Your task to perform on an android device: toggle javascript in the chrome app Image 0: 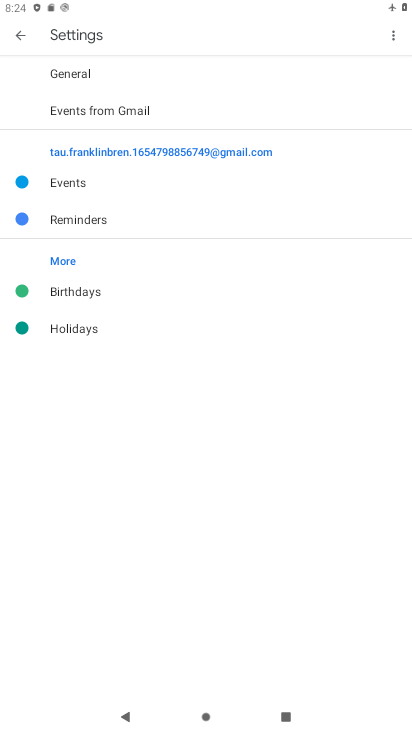
Step 0: press home button
Your task to perform on an android device: toggle javascript in the chrome app Image 1: 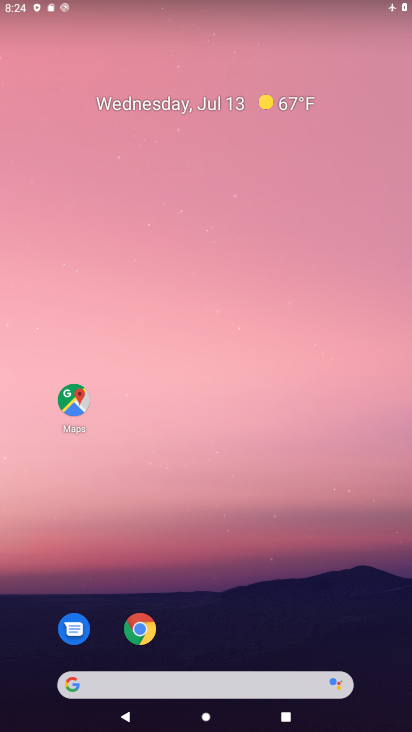
Step 1: click (149, 624)
Your task to perform on an android device: toggle javascript in the chrome app Image 2: 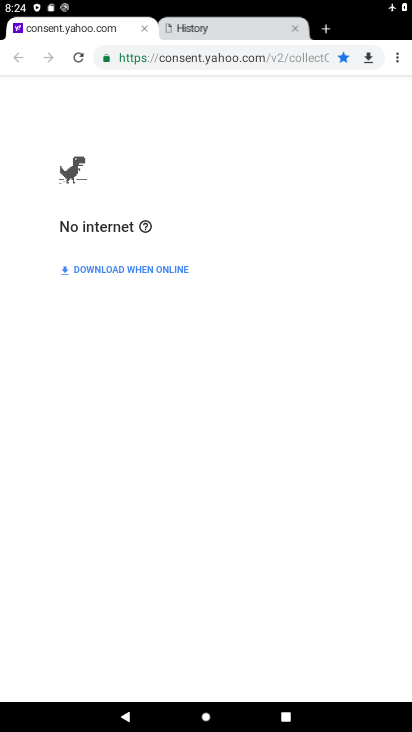
Step 2: click (398, 46)
Your task to perform on an android device: toggle javascript in the chrome app Image 3: 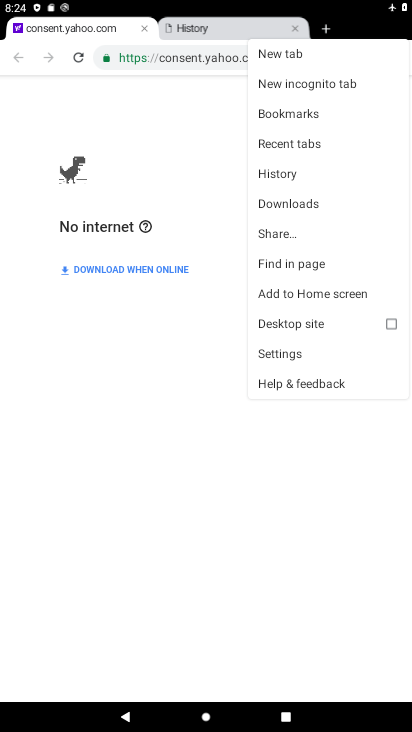
Step 3: click (297, 353)
Your task to perform on an android device: toggle javascript in the chrome app Image 4: 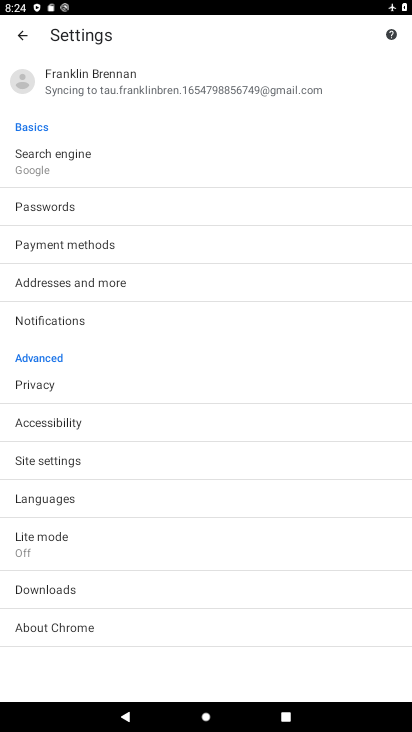
Step 4: click (59, 461)
Your task to perform on an android device: toggle javascript in the chrome app Image 5: 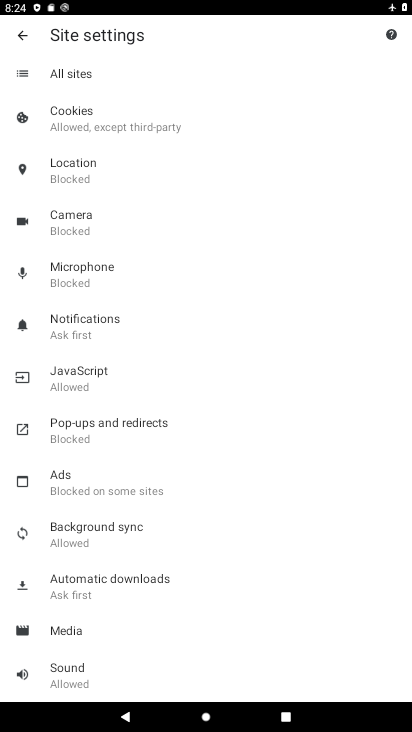
Step 5: click (81, 383)
Your task to perform on an android device: toggle javascript in the chrome app Image 6: 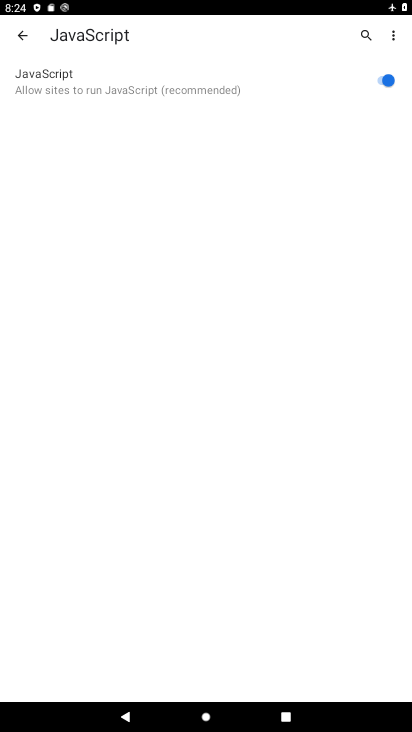
Step 6: click (362, 77)
Your task to perform on an android device: toggle javascript in the chrome app Image 7: 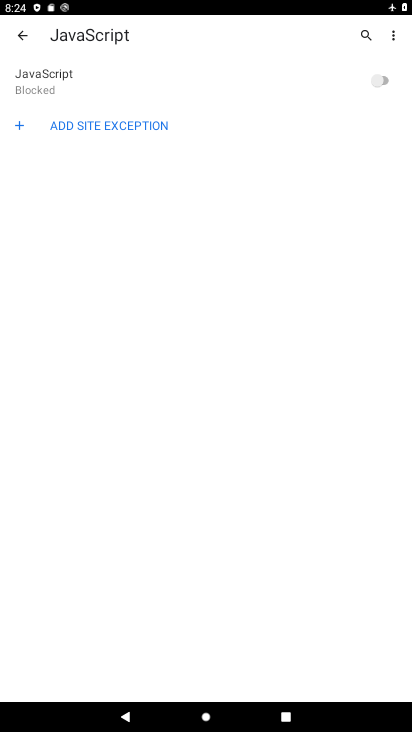
Step 7: task complete